Your task to perform on an android device: set an alarm Image 0: 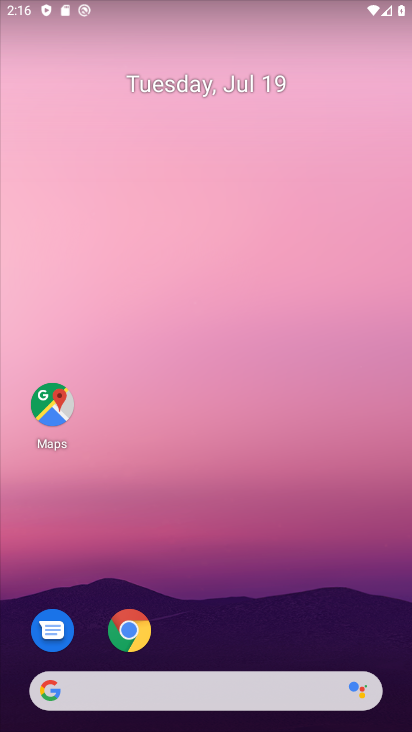
Step 0: drag from (245, 376) to (248, 62)
Your task to perform on an android device: set an alarm Image 1: 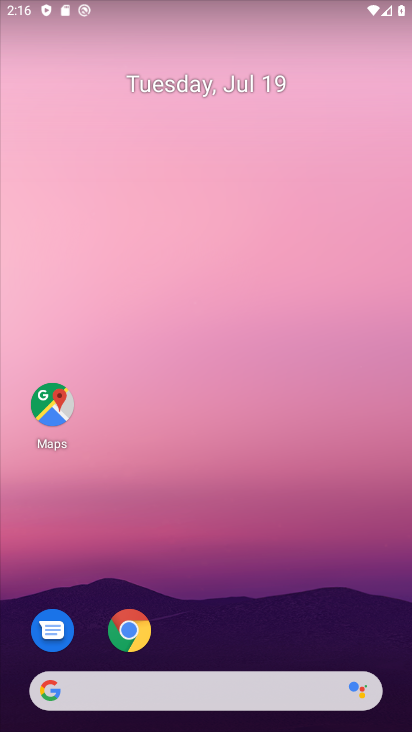
Step 1: drag from (247, 613) to (253, 13)
Your task to perform on an android device: set an alarm Image 2: 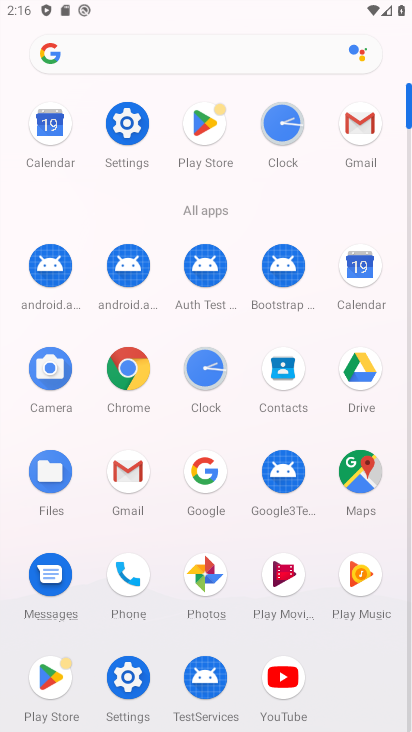
Step 2: click (286, 132)
Your task to perform on an android device: set an alarm Image 3: 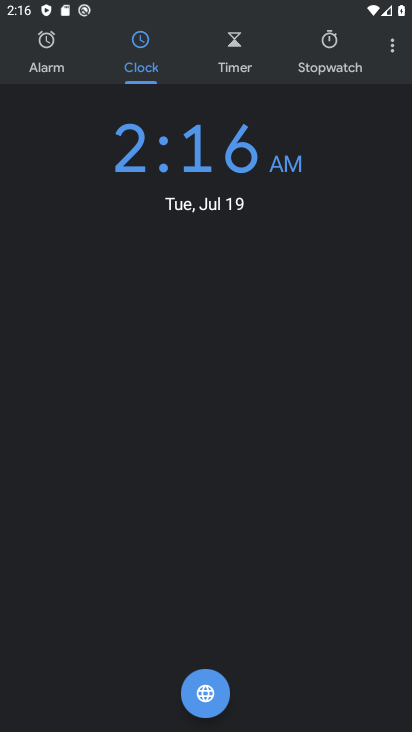
Step 3: click (56, 62)
Your task to perform on an android device: set an alarm Image 4: 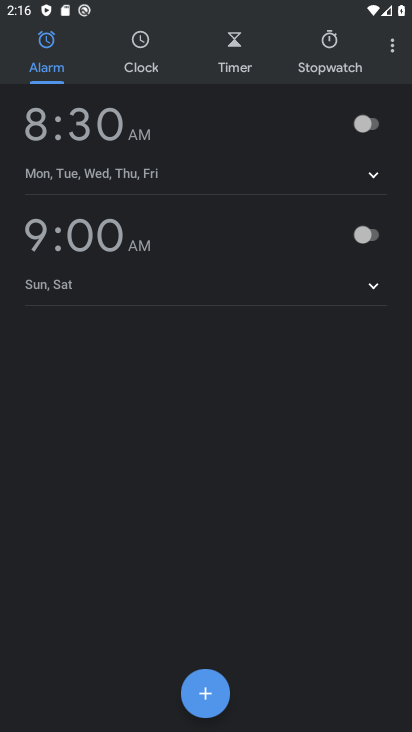
Step 4: click (201, 700)
Your task to perform on an android device: set an alarm Image 5: 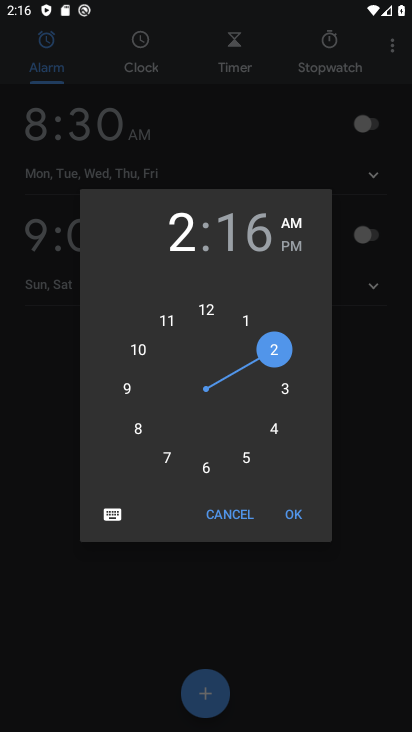
Step 5: click (248, 239)
Your task to perform on an android device: set an alarm Image 6: 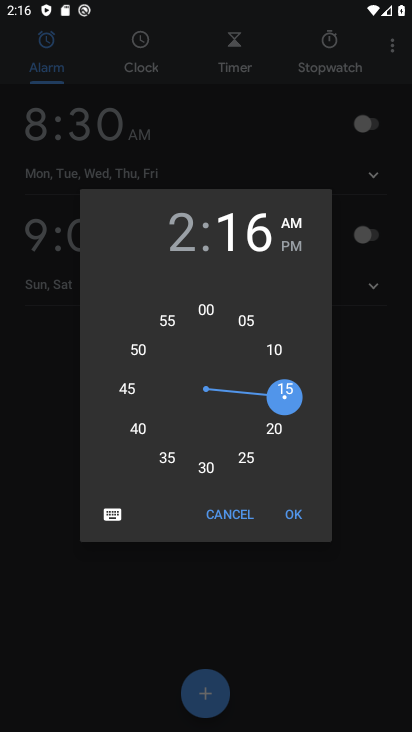
Step 6: click (210, 312)
Your task to perform on an android device: set an alarm Image 7: 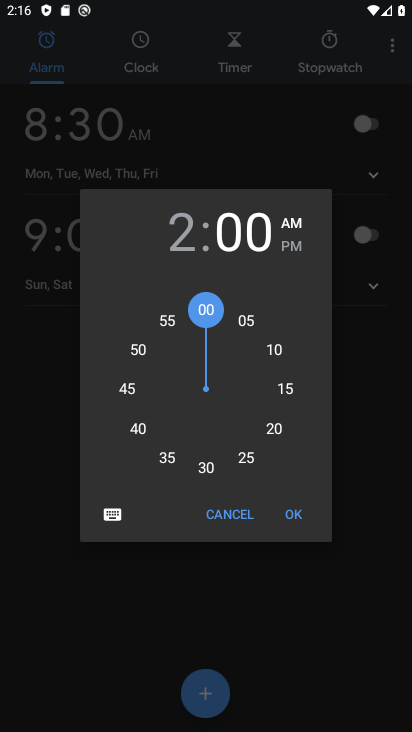
Step 7: click (296, 246)
Your task to perform on an android device: set an alarm Image 8: 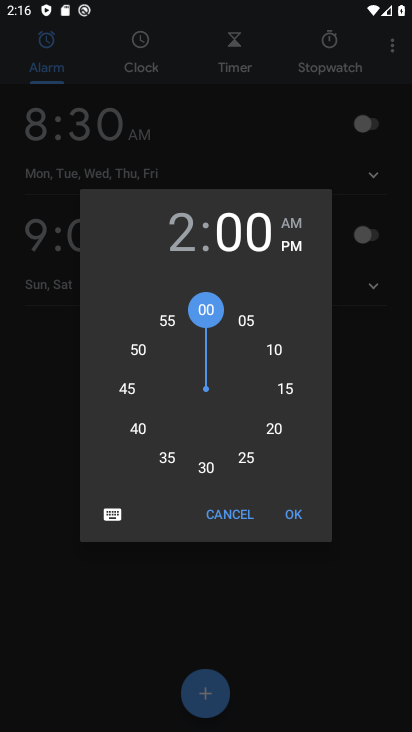
Step 8: click (296, 514)
Your task to perform on an android device: set an alarm Image 9: 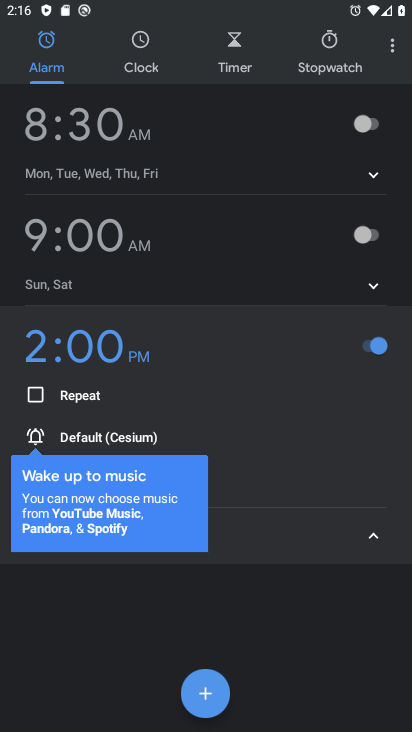
Step 9: task complete